Your task to perform on an android device: Open the Play Movies app and select the watchlist tab. Image 0: 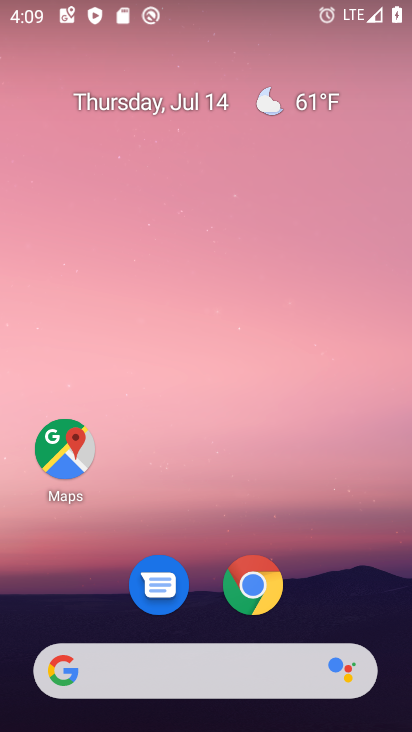
Step 0: drag from (319, 518) to (315, 65)
Your task to perform on an android device: Open the Play Movies app and select the watchlist tab. Image 1: 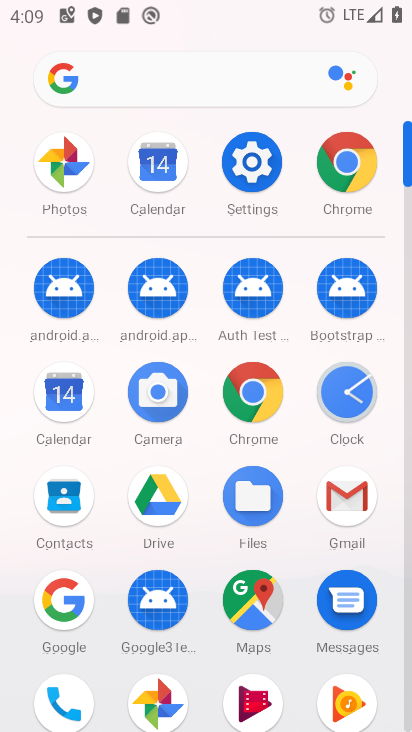
Step 1: click (313, 258)
Your task to perform on an android device: Open the Play Movies app and select the watchlist tab. Image 2: 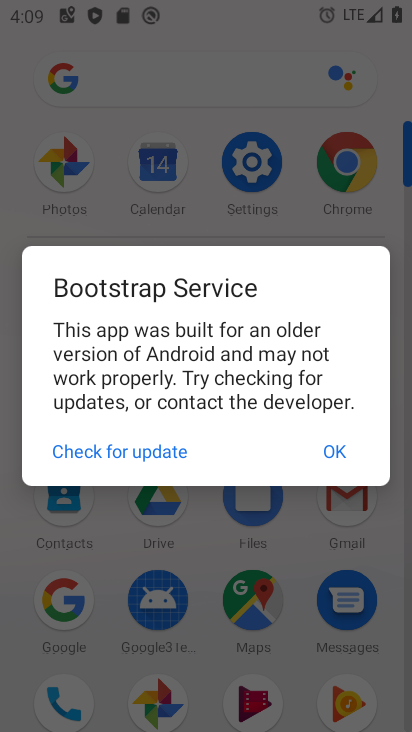
Step 2: click (247, 685)
Your task to perform on an android device: Open the Play Movies app and select the watchlist tab. Image 3: 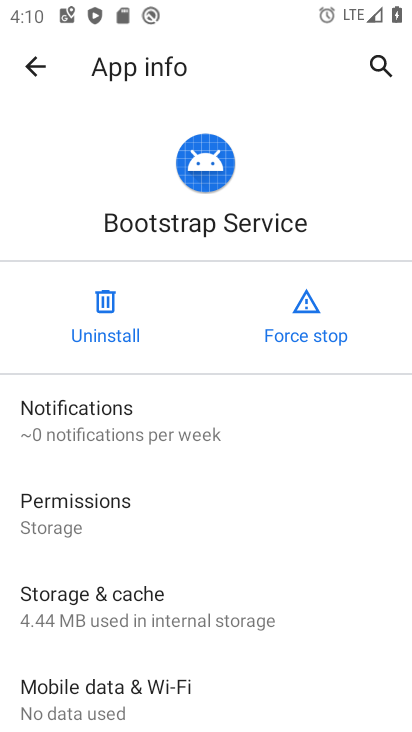
Step 3: click (37, 68)
Your task to perform on an android device: Open the Play Movies app and select the watchlist tab. Image 4: 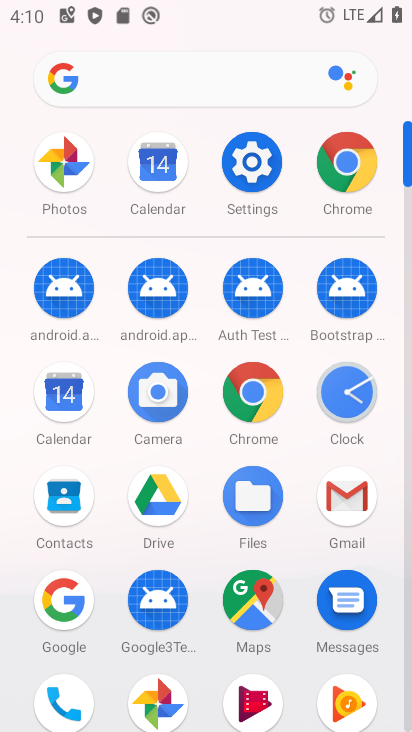
Step 4: click (259, 696)
Your task to perform on an android device: Open the Play Movies app and select the watchlist tab. Image 5: 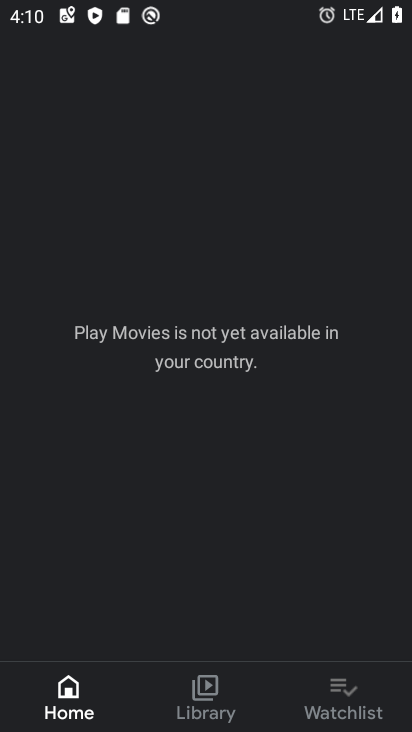
Step 5: click (339, 684)
Your task to perform on an android device: Open the Play Movies app and select the watchlist tab. Image 6: 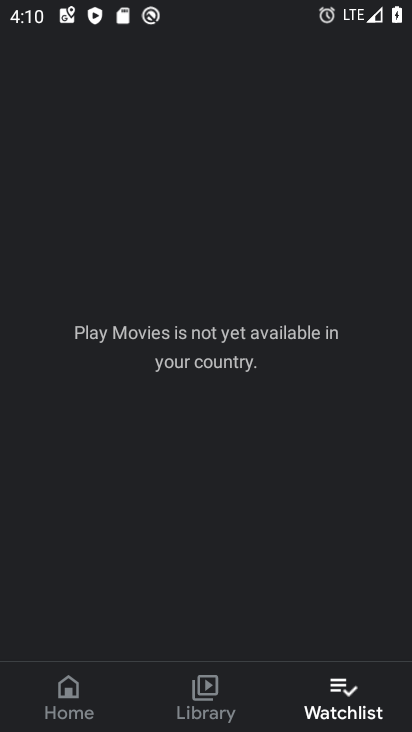
Step 6: task complete